Your task to perform on an android device: Open the calendar app, open the side menu, and click the "Day" option Image 0: 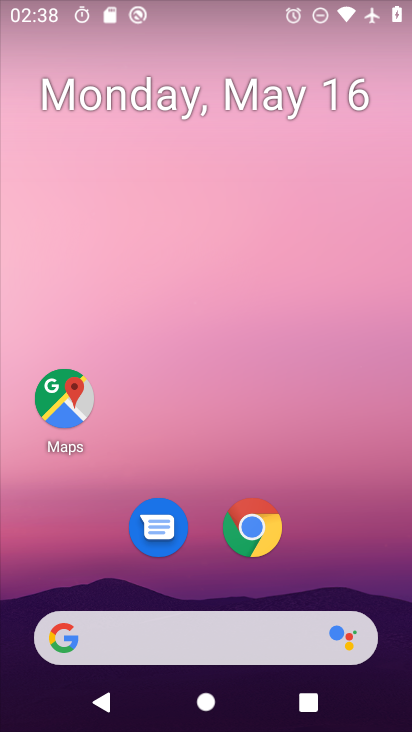
Step 0: press home button
Your task to perform on an android device: Open the calendar app, open the side menu, and click the "Day" option Image 1: 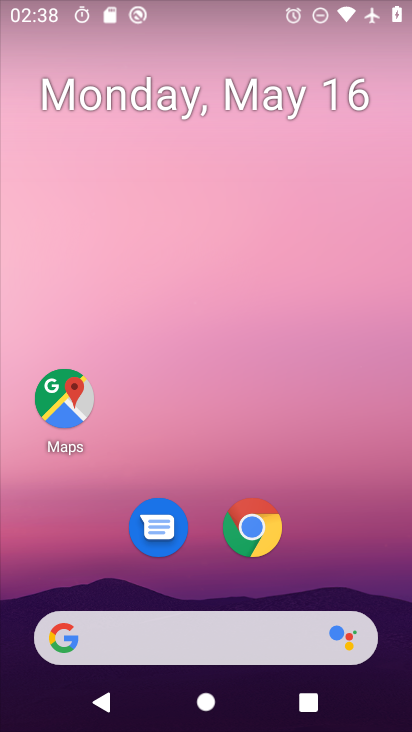
Step 1: drag from (190, 633) to (322, 182)
Your task to perform on an android device: Open the calendar app, open the side menu, and click the "Day" option Image 2: 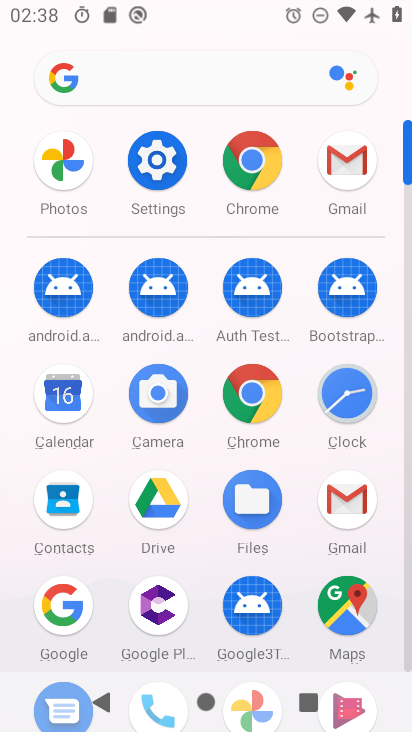
Step 2: click (69, 401)
Your task to perform on an android device: Open the calendar app, open the side menu, and click the "Day" option Image 3: 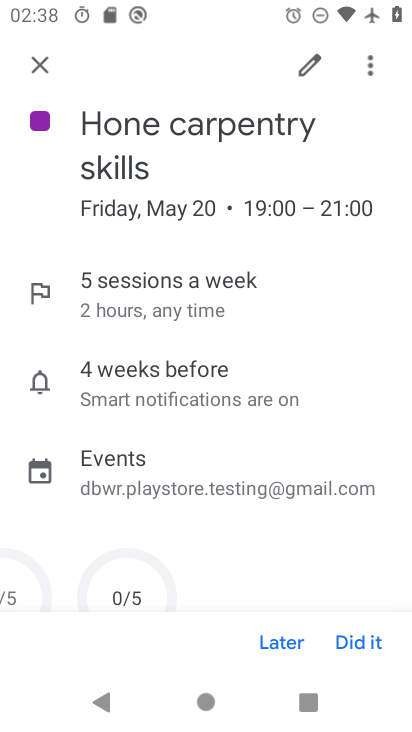
Step 3: click (43, 65)
Your task to perform on an android device: Open the calendar app, open the side menu, and click the "Day" option Image 4: 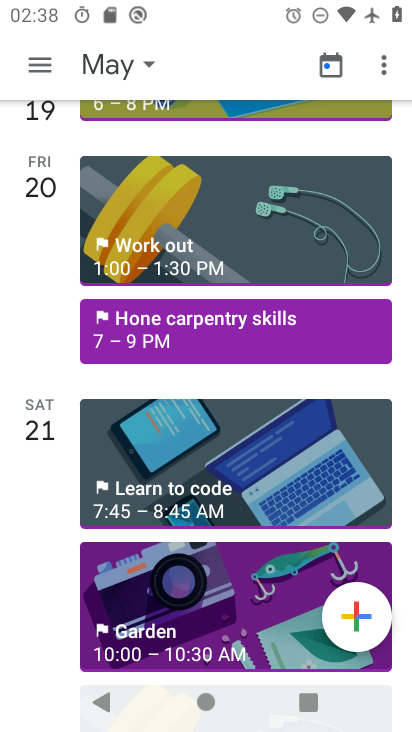
Step 4: click (43, 65)
Your task to perform on an android device: Open the calendar app, open the side menu, and click the "Day" option Image 5: 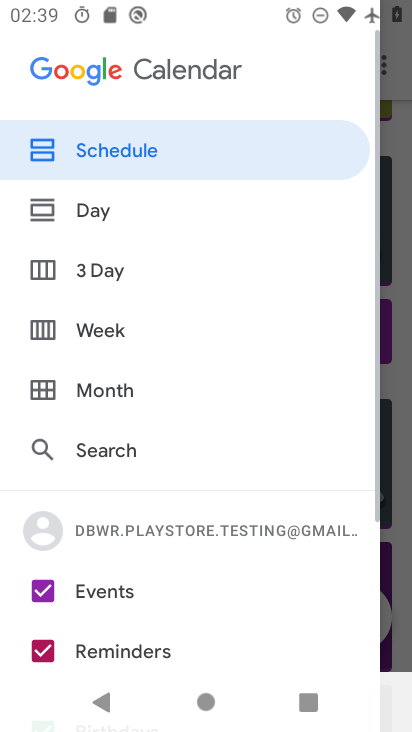
Step 5: click (95, 218)
Your task to perform on an android device: Open the calendar app, open the side menu, and click the "Day" option Image 6: 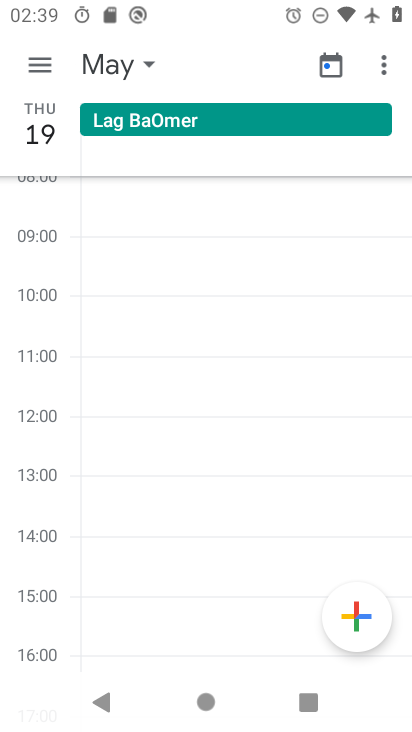
Step 6: task complete